Your task to perform on an android device: open a new tab in the chrome app Image 0: 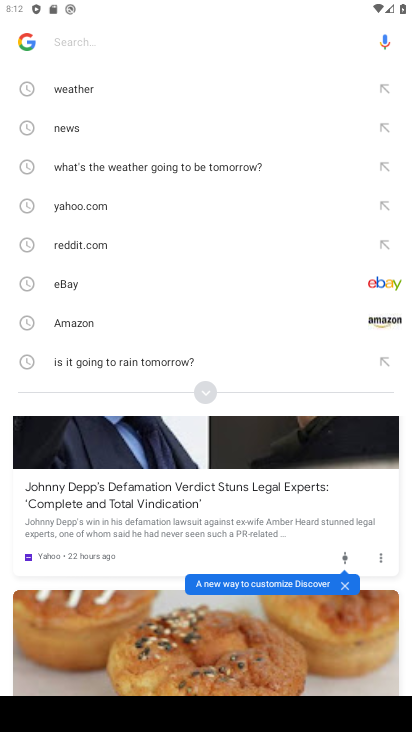
Step 0: press back button
Your task to perform on an android device: open a new tab in the chrome app Image 1: 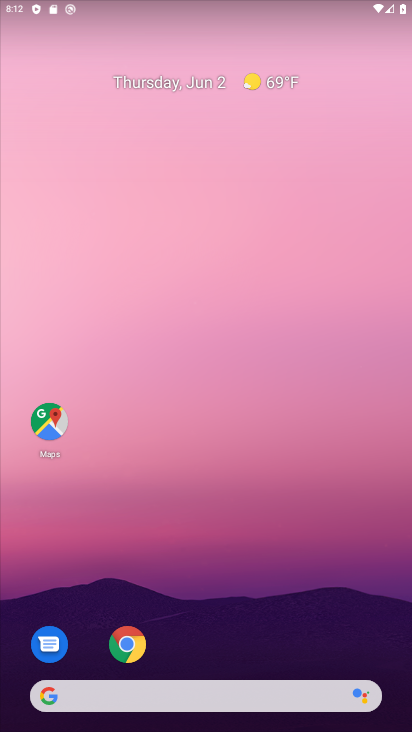
Step 1: drag from (210, 577) to (198, 10)
Your task to perform on an android device: open a new tab in the chrome app Image 2: 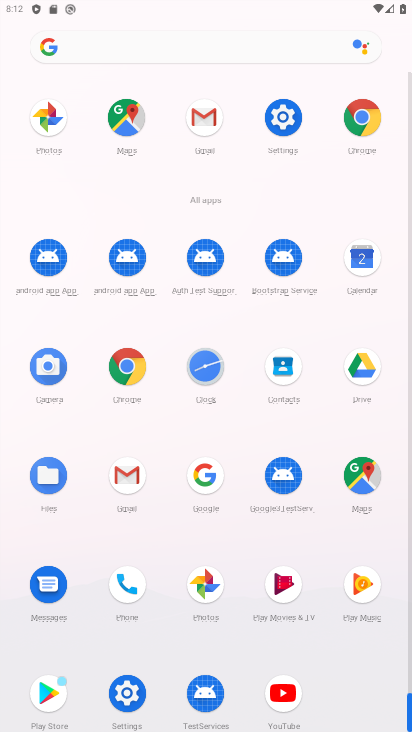
Step 2: click (125, 361)
Your task to perform on an android device: open a new tab in the chrome app Image 3: 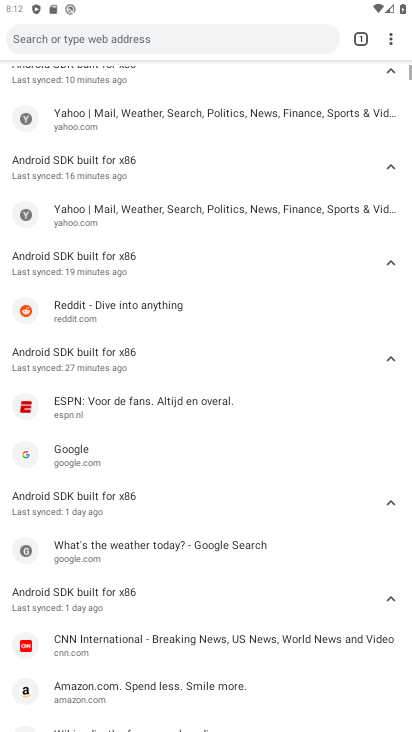
Step 3: task complete